Your task to perform on an android device: turn on improve location accuracy Image 0: 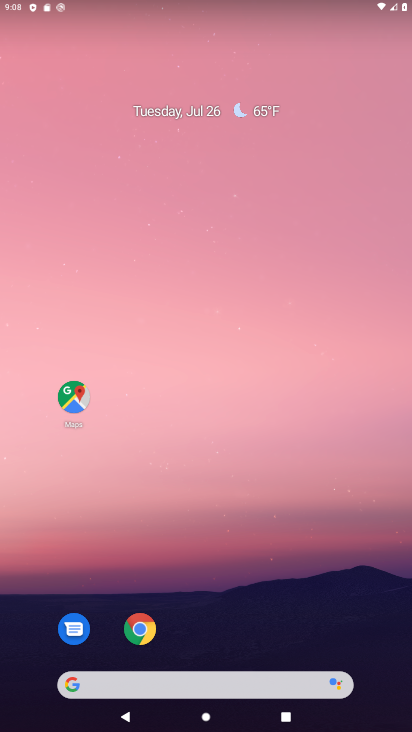
Step 0: drag from (316, 595) to (277, 129)
Your task to perform on an android device: turn on improve location accuracy Image 1: 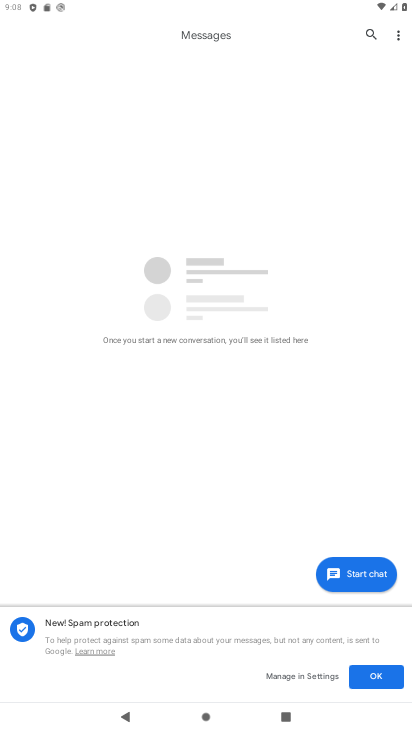
Step 1: press home button
Your task to perform on an android device: turn on improve location accuracy Image 2: 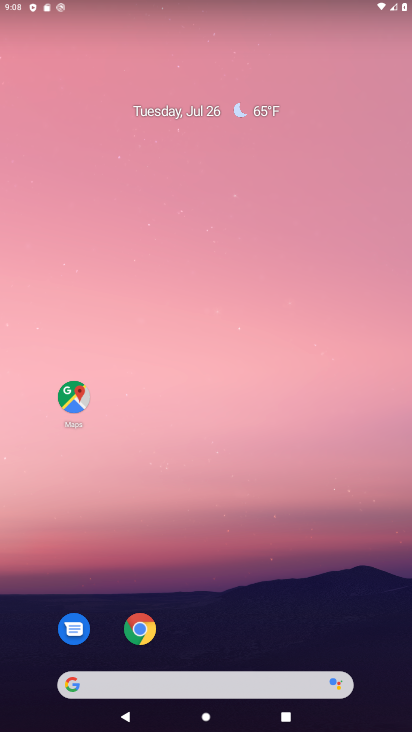
Step 2: drag from (248, 475) to (210, 116)
Your task to perform on an android device: turn on improve location accuracy Image 3: 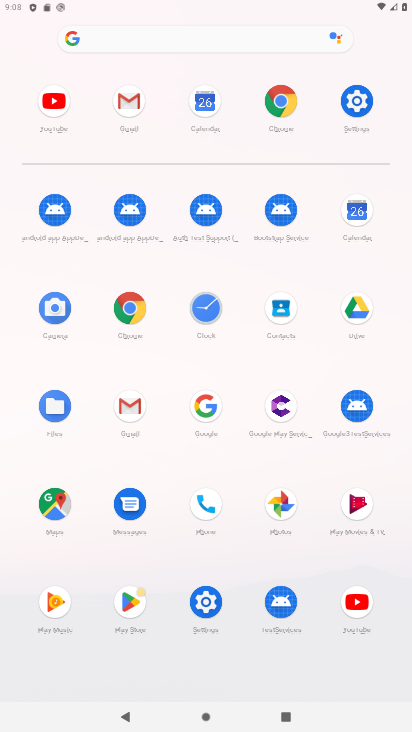
Step 3: click (200, 594)
Your task to perform on an android device: turn on improve location accuracy Image 4: 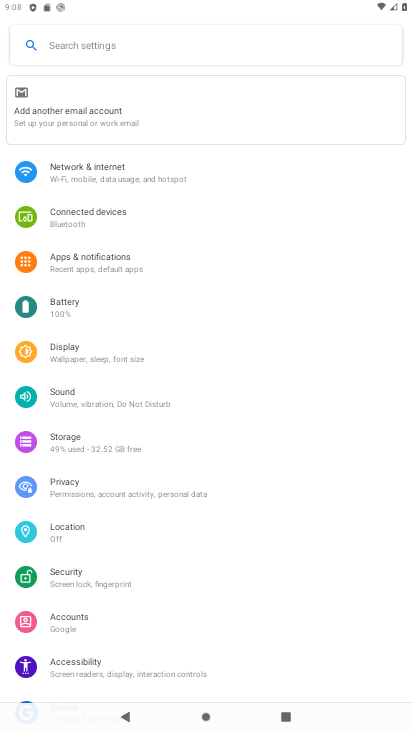
Step 4: drag from (200, 585) to (192, 120)
Your task to perform on an android device: turn on improve location accuracy Image 5: 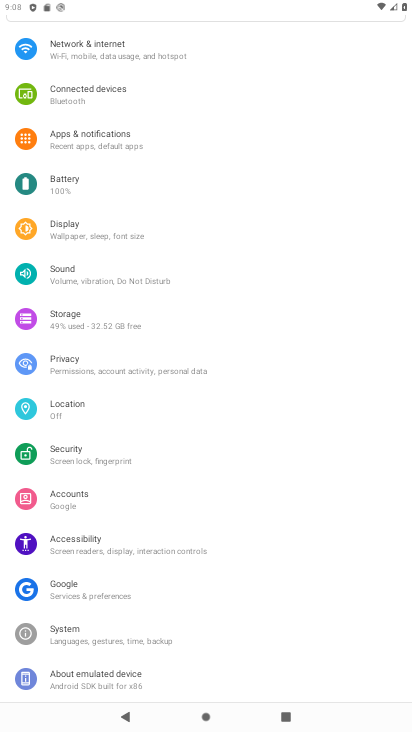
Step 5: click (66, 410)
Your task to perform on an android device: turn on improve location accuracy Image 6: 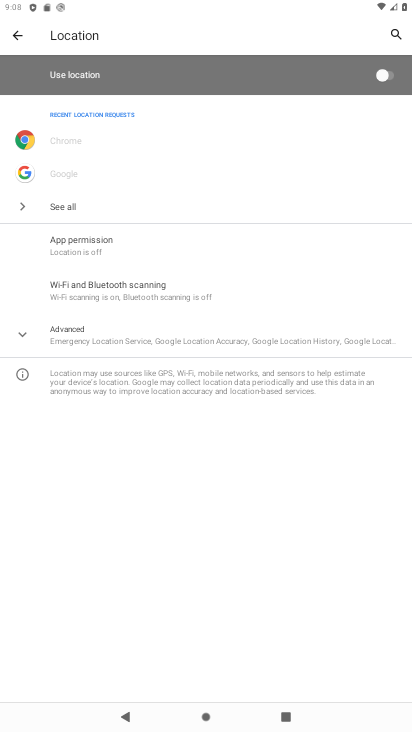
Step 6: click (111, 340)
Your task to perform on an android device: turn on improve location accuracy Image 7: 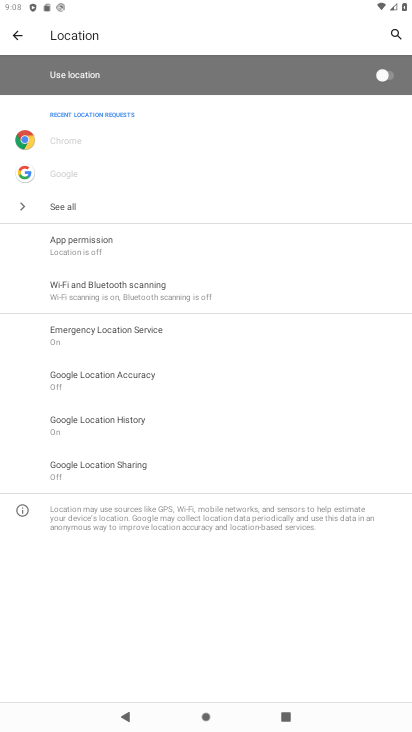
Step 7: click (134, 376)
Your task to perform on an android device: turn on improve location accuracy Image 8: 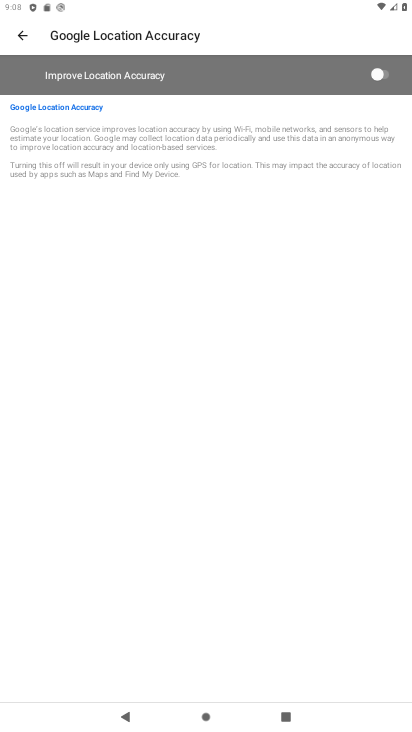
Step 8: click (327, 74)
Your task to perform on an android device: turn on improve location accuracy Image 9: 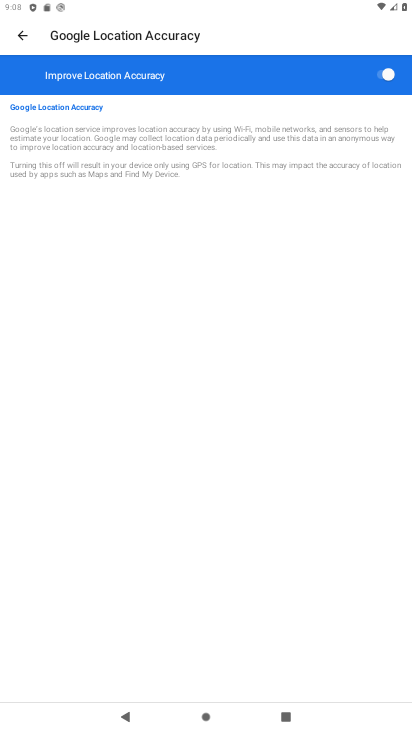
Step 9: task complete